Your task to perform on an android device: Go to Google maps Image 0: 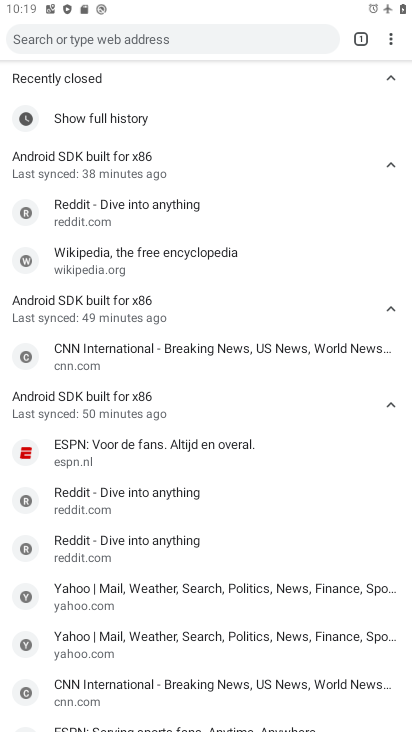
Step 0: press home button
Your task to perform on an android device: Go to Google maps Image 1: 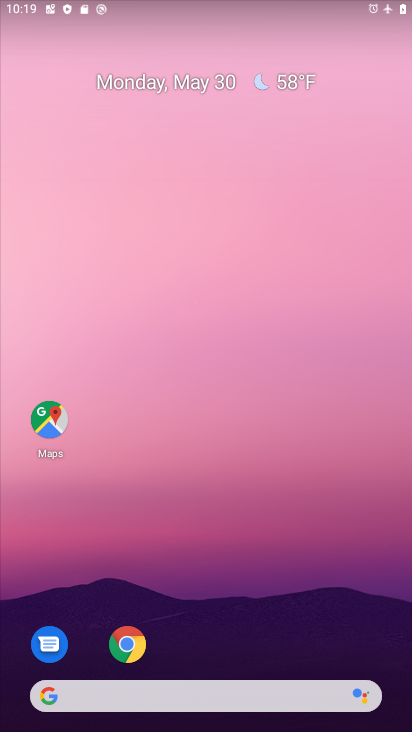
Step 1: click (51, 413)
Your task to perform on an android device: Go to Google maps Image 2: 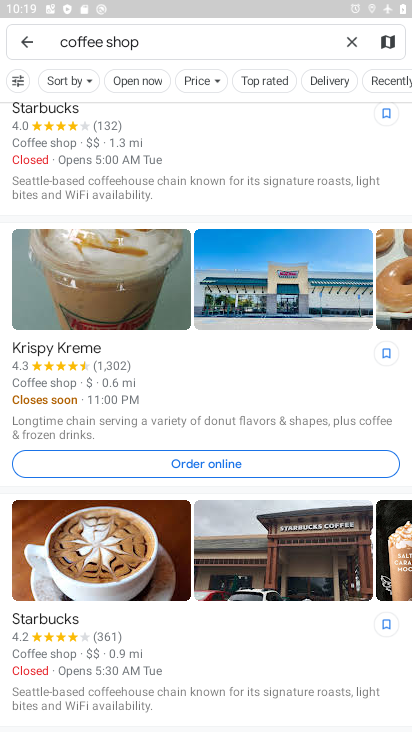
Step 2: click (353, 35)
Your task to perform on an android device: Go to Google maps Image 3: 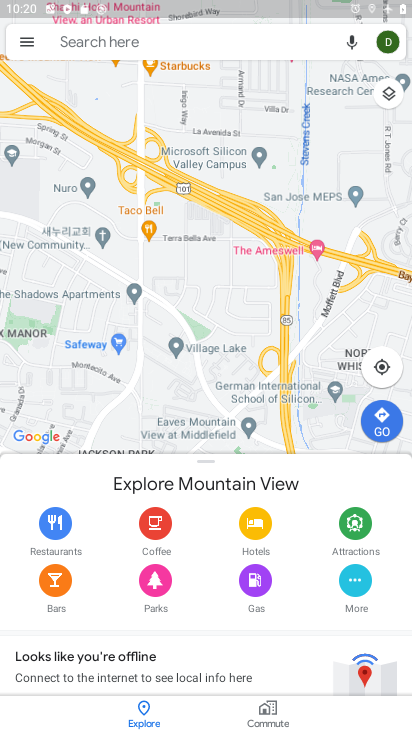
Step 3: task complete